Your task to perform on an android device: What's the weather going to be tomorrow? Image 0: 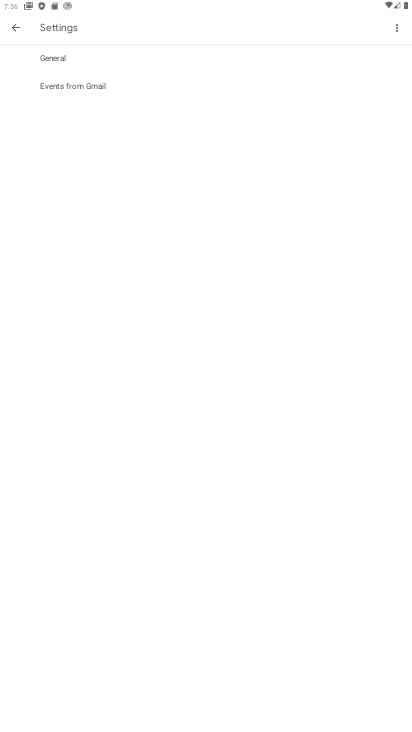
Step 0: press home button
Your task to perform on an android device: What's the weather going to be tomorrow? Image 1: 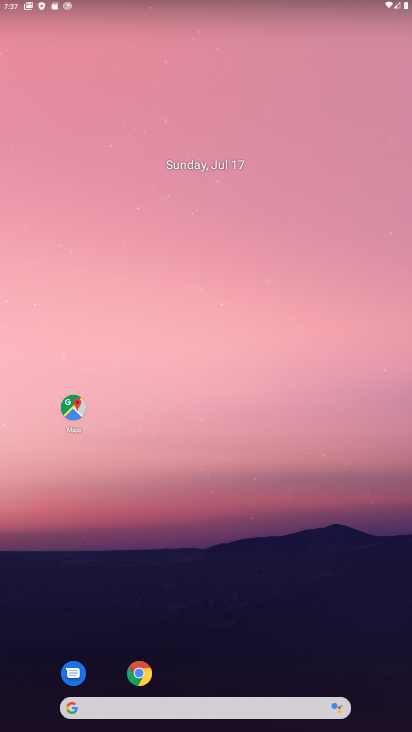
Step 1: click (90, 709)
Your task to perform on an android device: What's the weather going to be tomorrow? Image 2: 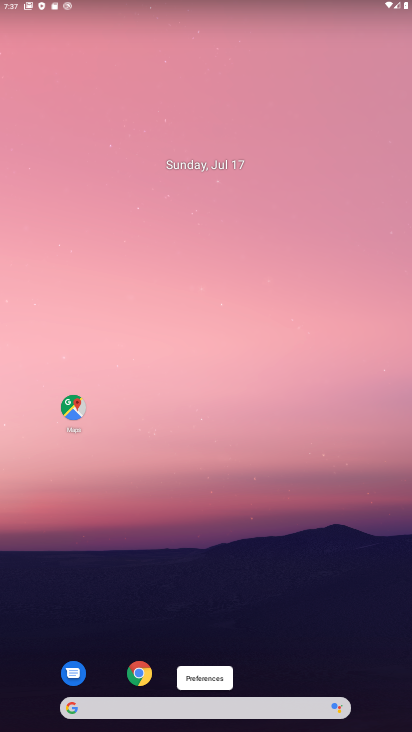
Step 2: click (113, 698)
Your task to perform on an android device: What's the weather going to be tomorrow? Image 3: 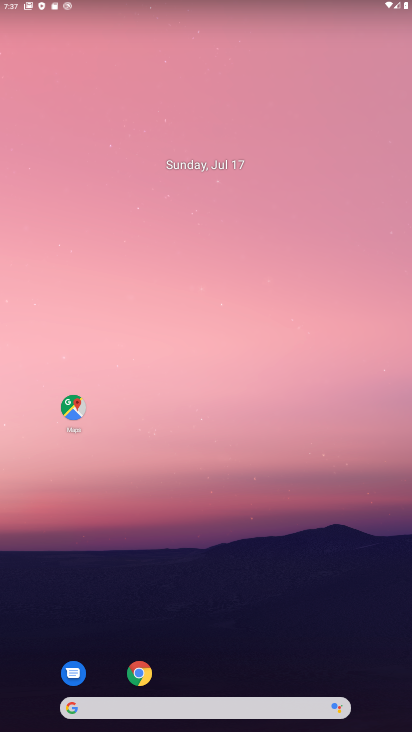
Step 3: click (157, 706)
Your task to perform on an android device: What's the weather going to be tomorrow? Image 4: 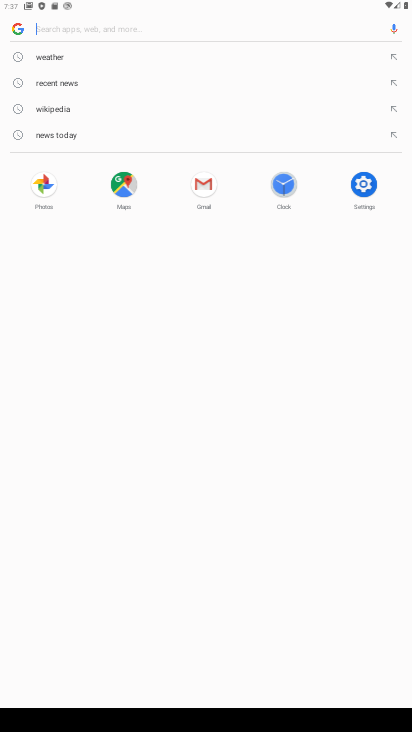
Step 4: type "What's the weather going to be tomorrow?"
Your task to perform on an android device: What's the weather going to be tomorrow? Image 5: 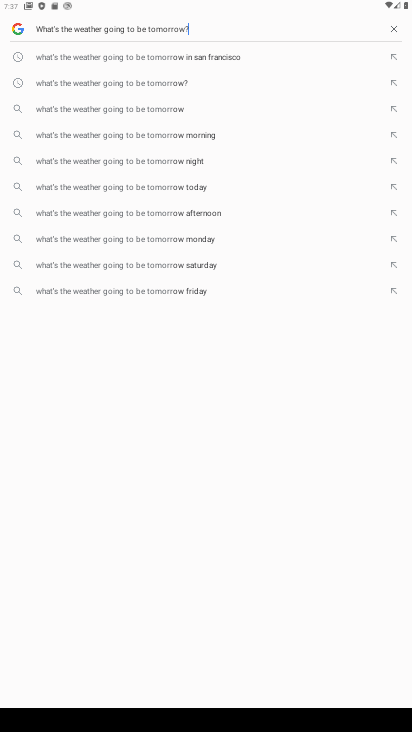
Step 5: type ""
Your task to perform on an android device: What's the weather going to be tomorrow? Image 6: 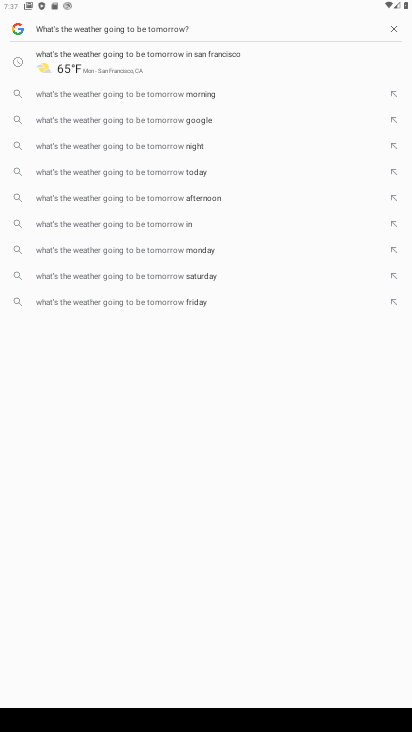
Step 6: task complete